Your task to perform on an android device: toggle show notifications on the lock screen Image 0: 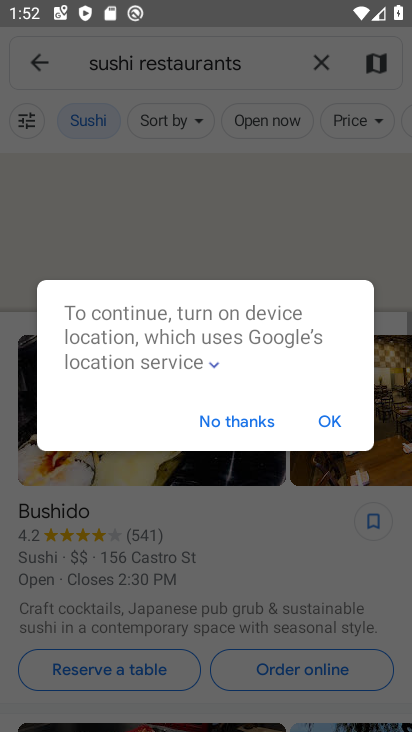
Step 0: press home button
Your task to perform on an android device: toggle show notifications on the lock screen Image 1: 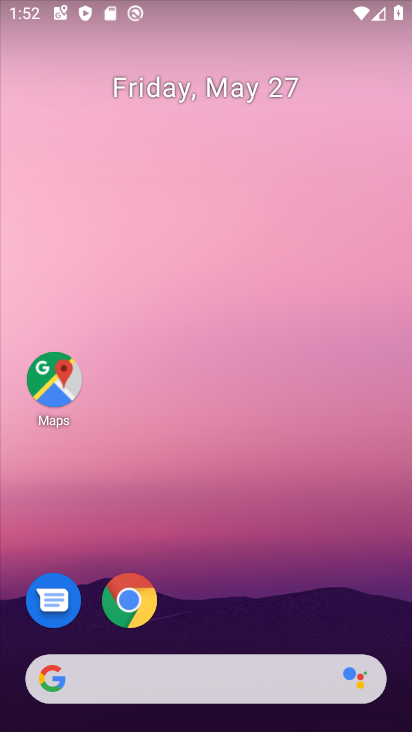
Step 1: drag from (194, 718) to (194, 98)
Your task to perform on an android device: toggle show notifications on the lock screen Image 2: 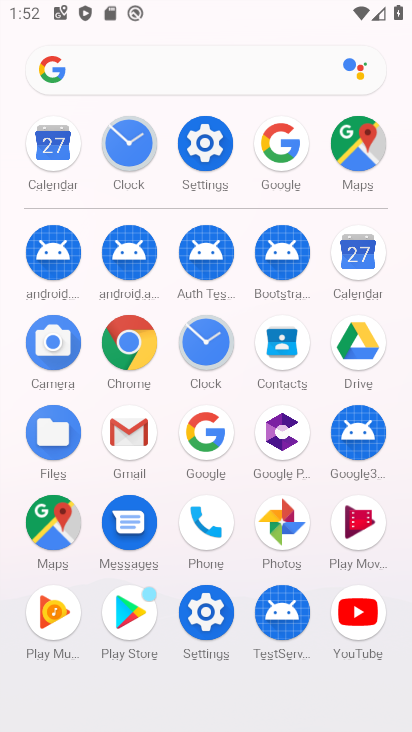
Step 2: click (203, 144)
Your task to perform on an android device: toggle show notifications on the lock screen Image 3: 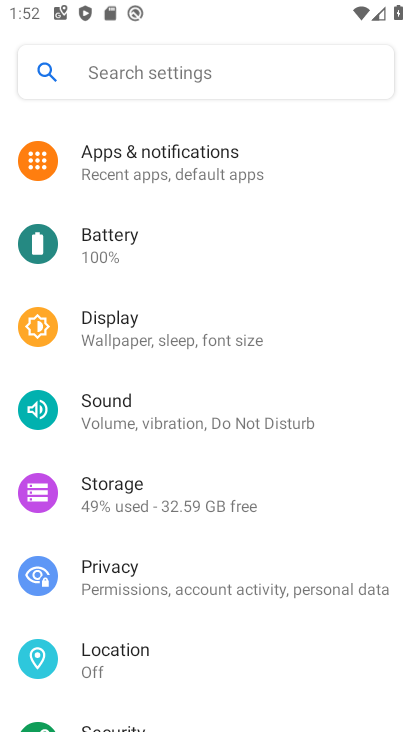
Step 3: click (150, 154)
Your task to perform on an android device: toggle show notifications on the lock screen Image 4: 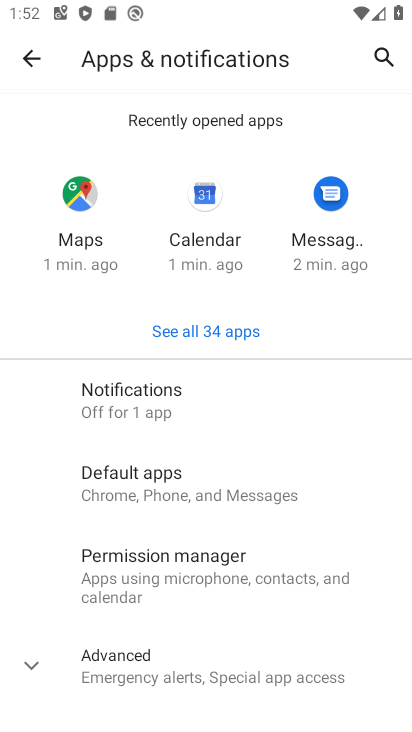
Step 4: click (114, 393)
Your task to perform on an android device: toggle show notifications on the lock screen Image 5: 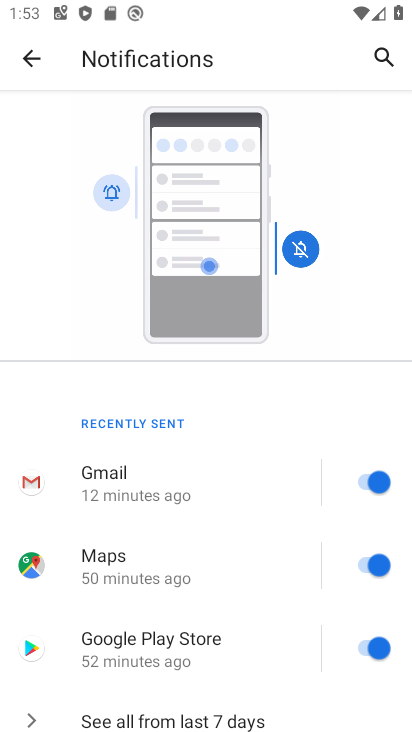
Step 5: drag from (189, 700) to (191, 328)
Your task to perform on an android device: toggle show notifications on the lock screen Image 6: 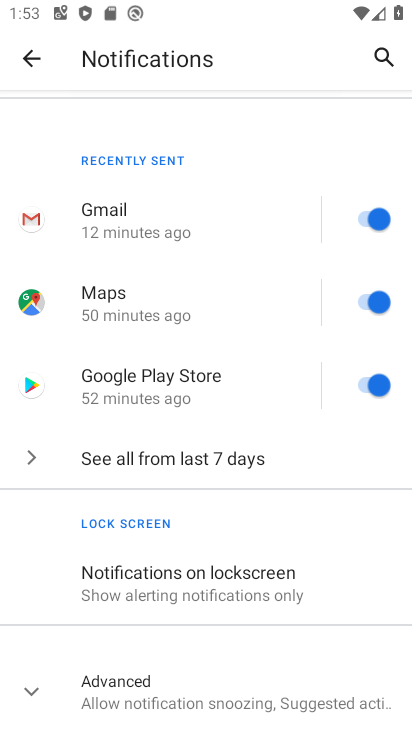
Step 6: drag from (208, 666) to (208, 358)
Your task to perform on an android device: toggle show notifications on the lock screen Image 7: 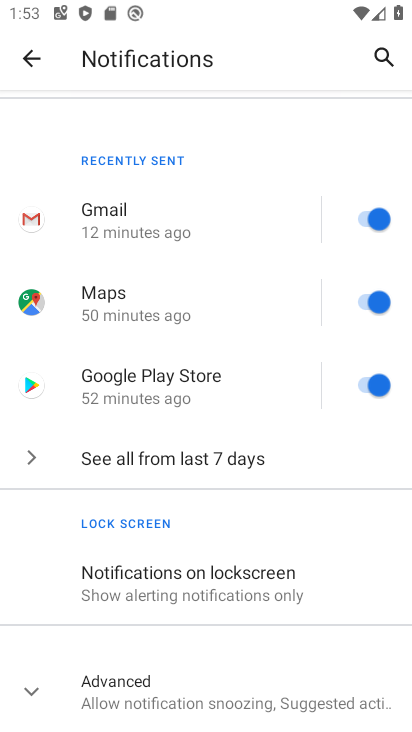
Step 7: click (179, 576)
Your task to perform on an android device: toggle show notifications on the lock screen Image 8: 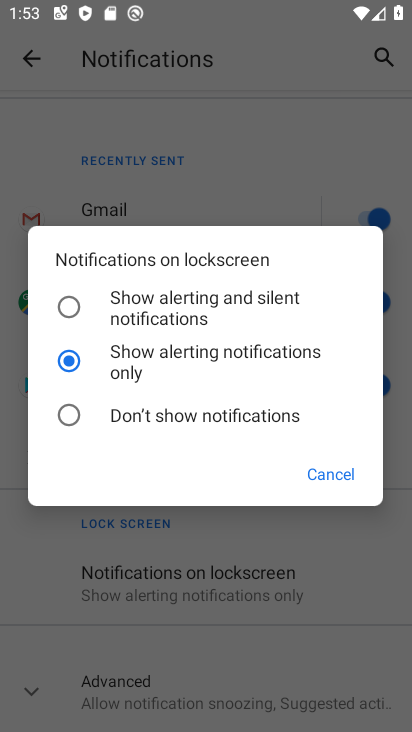
Step 8: click (63, 414)
Your task to perform on an android device: toggle show notifications on the lock screen Image 9: 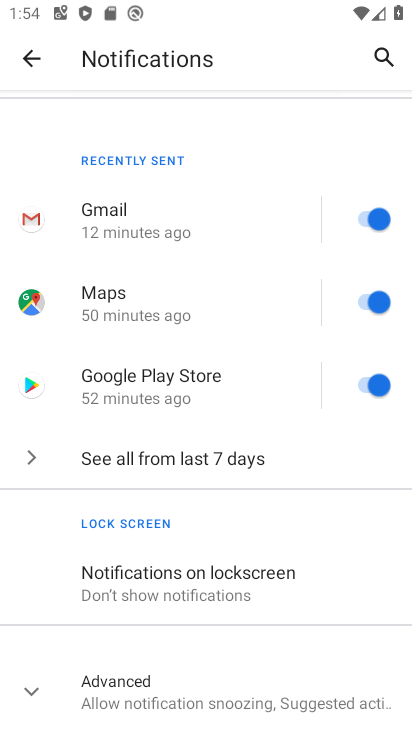
Step 9: task complete